Your task to perform on an android device: Open Yahoo.com Image 0: 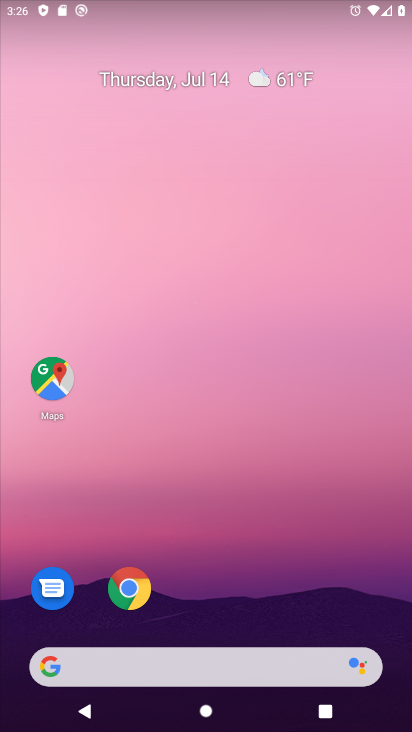
Step 0: click (97, 668)
Your task to perform on an android device: Open Yahoo.com Image 1: 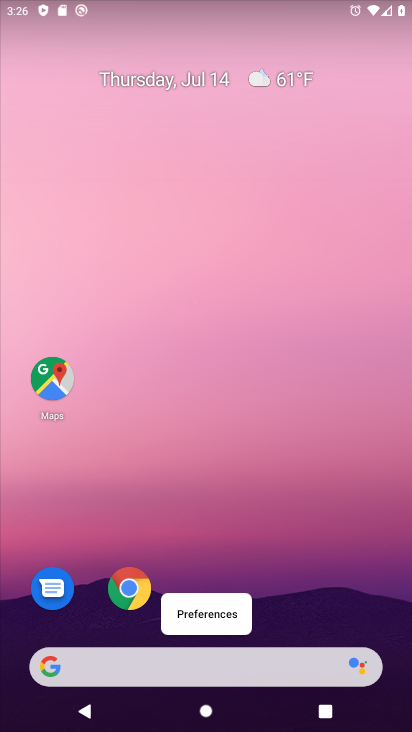
Step 1: click (47, 669)
Your task to perform on an android device: Open Yahoo.com Image 2: 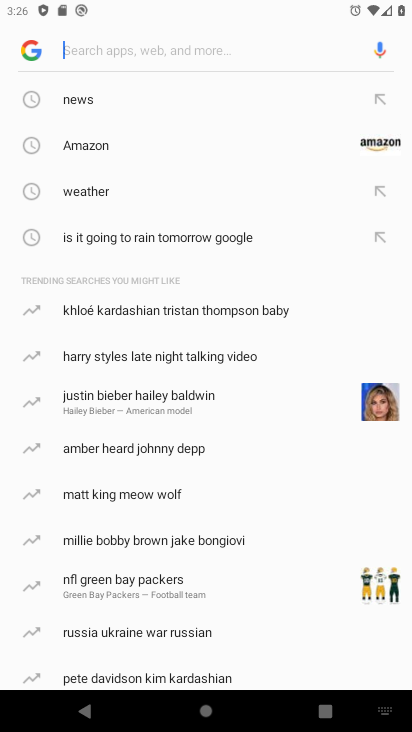
Step 2: type "Yahoo.com"
Your task to perform on an android device: Open Yahoo.com Image 3: 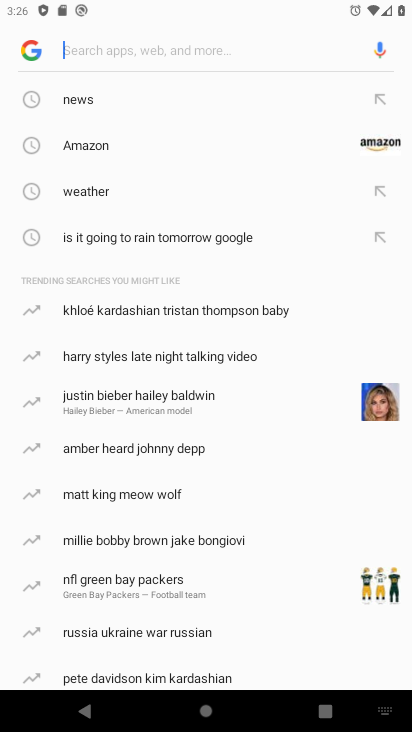
Step 3: click (104, 45)
Your task to perform on an android device: Open Yahoo.com Image 4: 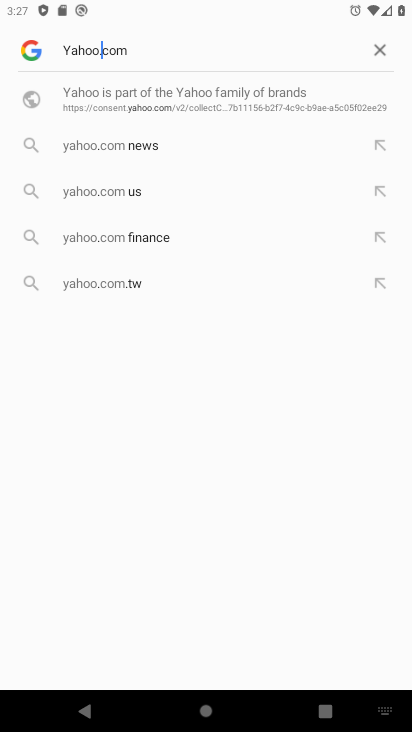
Step 4: press enter
Your task to perform on an android device: Open Yahoo.com Image 5: 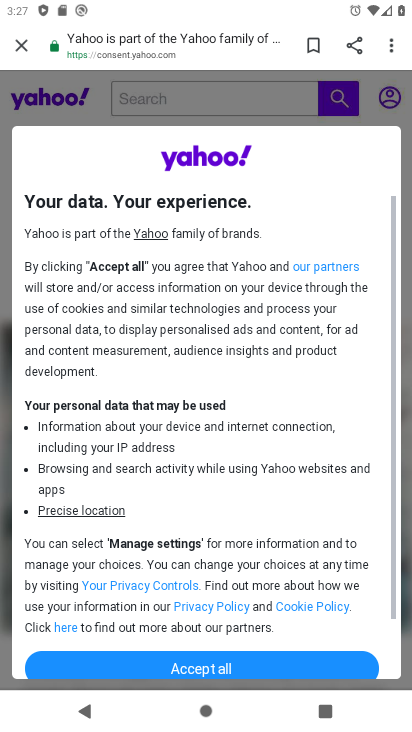
Step 5: click (202, 659)
Your task to perform on an android device: Open Yahoo.com Image 6: 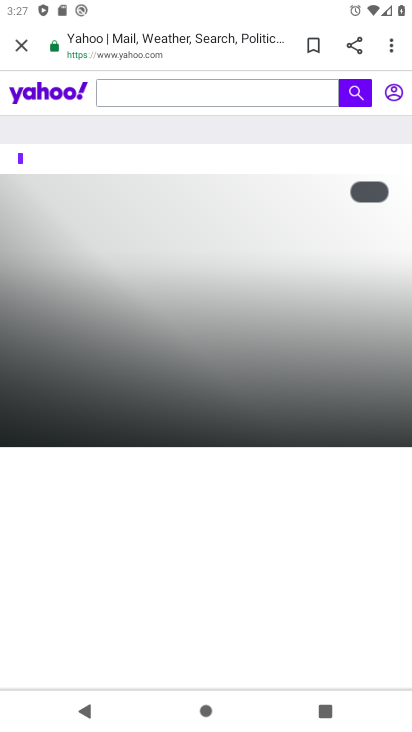
Step 6: task complete